Your task to perform on an android device: Open display settings Image 0: 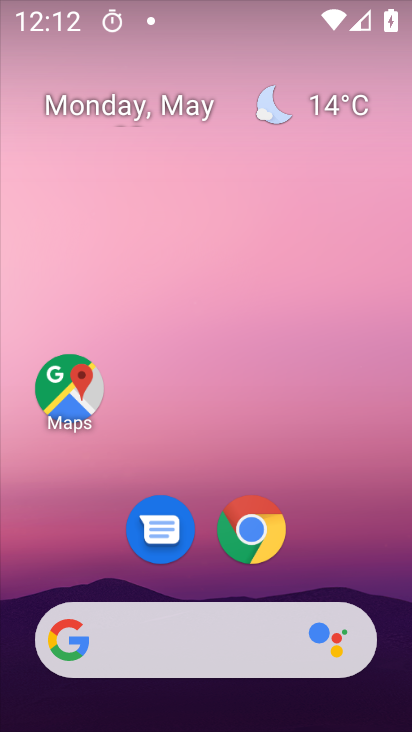
Step 0: drag from (376, 479) to (366, 146)
Your task to perform on an android device: Open display settings Image 1: 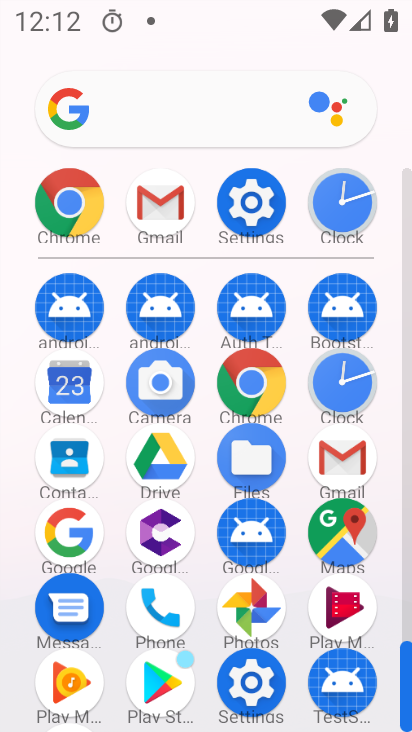
Step 1: click (240, 201)
Your task to perform on an android device: Open display settings Image 2: 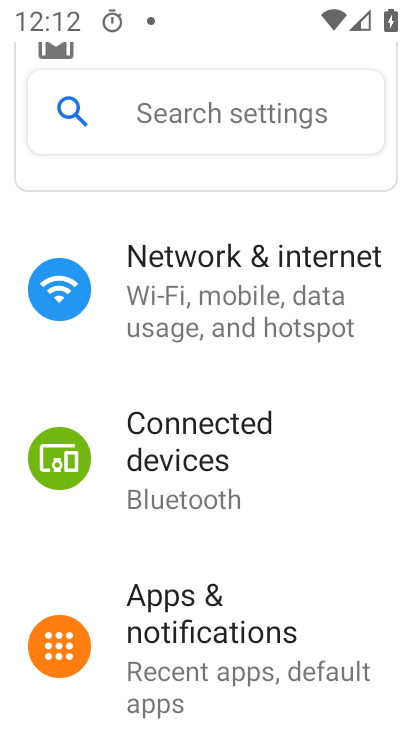
Step 2: drag from (359, 549) to (357, 440)
Your task to perform on an android device: Open display settings Image 3: 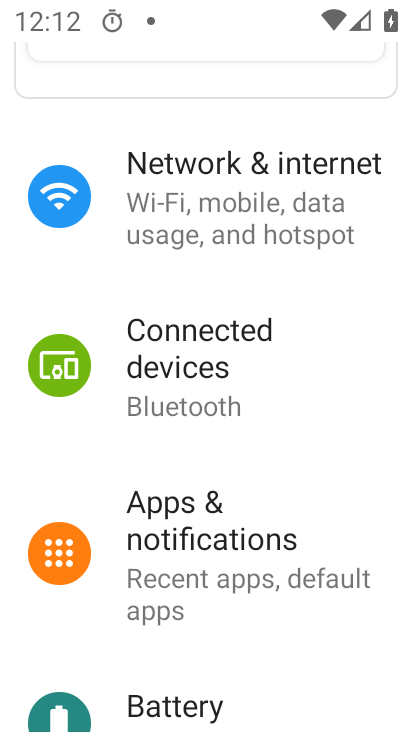
Step 3: drag from (368, 625) to (364, 458)
Your task to perform on an android device: Open display settings Image 4: 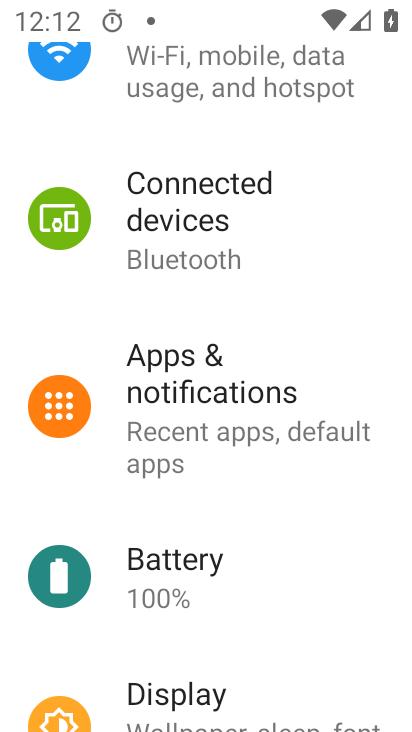
Step 4: drag from (347, 641) to (348, 502)
Your task to perform on an android device: Open display settings Image 5: 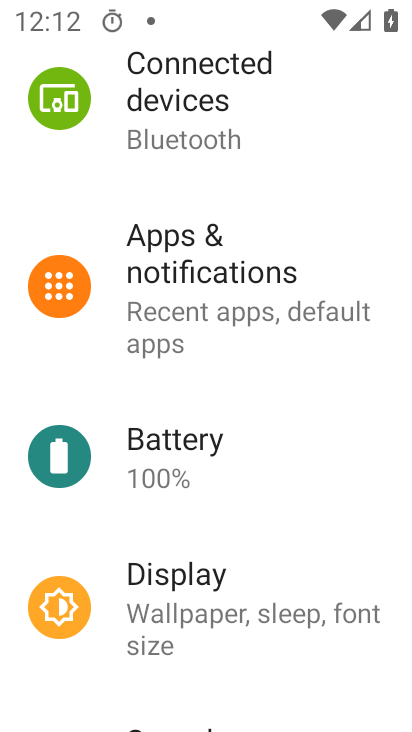
Step 5: drag from (361, 671) to (360, 505)
Your task to perform on an android device: Open display settings Image 6: 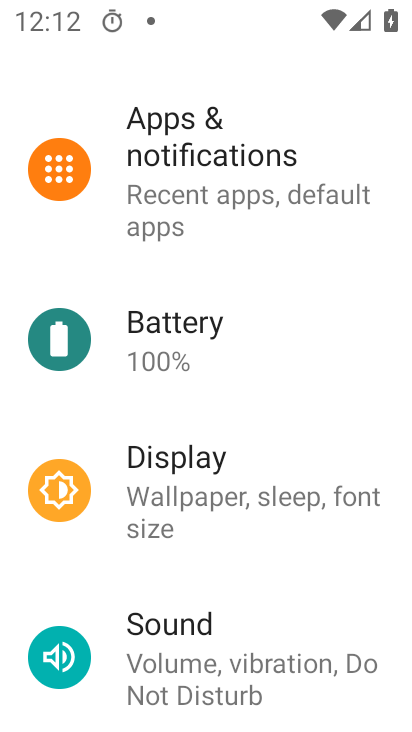
Step 6: drag from (362, 610) to (362, 511)
Your task to perform on an android device: Open display settings Image 7: 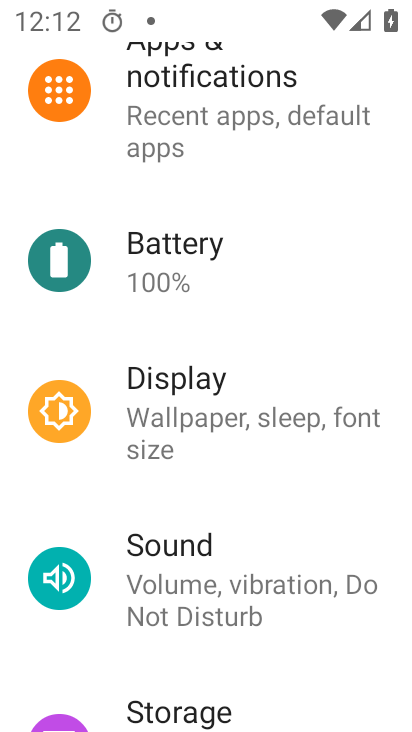
Step 7: click (321, 421)
Your task to perform on an android device: Open display settings Image 8: 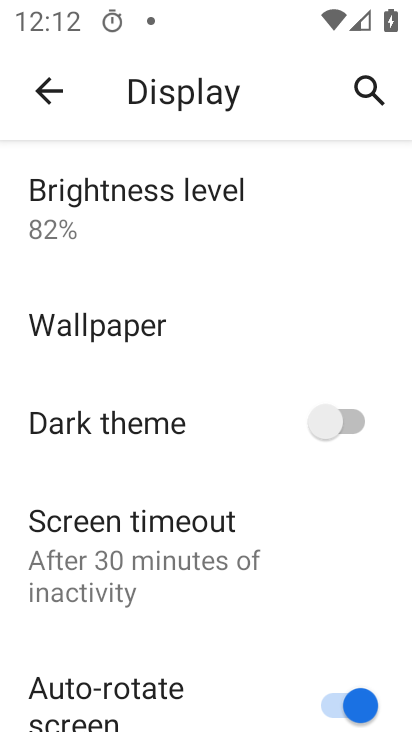
Step 8: task complete